Your task to perform on an android device: find snoozed emails in the gmail app Image 0: 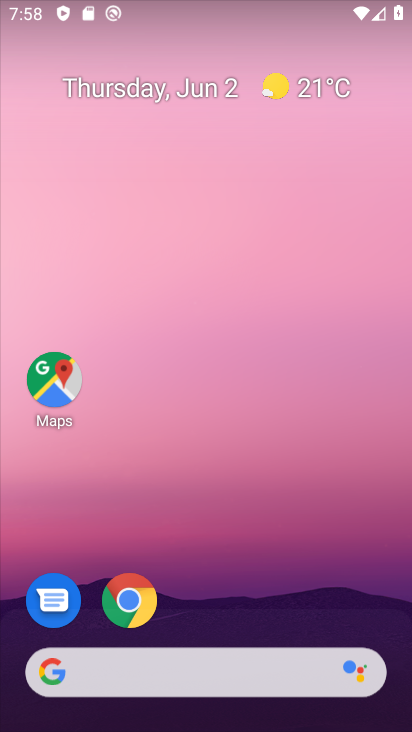
Step 0: drag from (198, 630) to (251, 97)
Your task to perform on an android device: find snoozed emails in the gmail app Image 1: 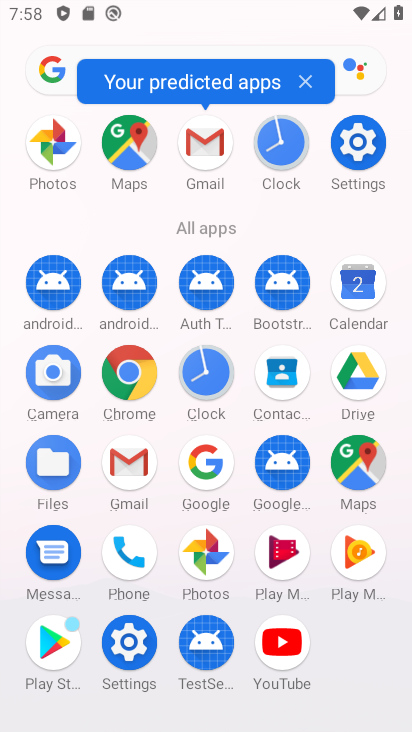
Step 1: click (212, 149)
Your task to perform on an android device: find snoozed emails in the gmail app Image 2: 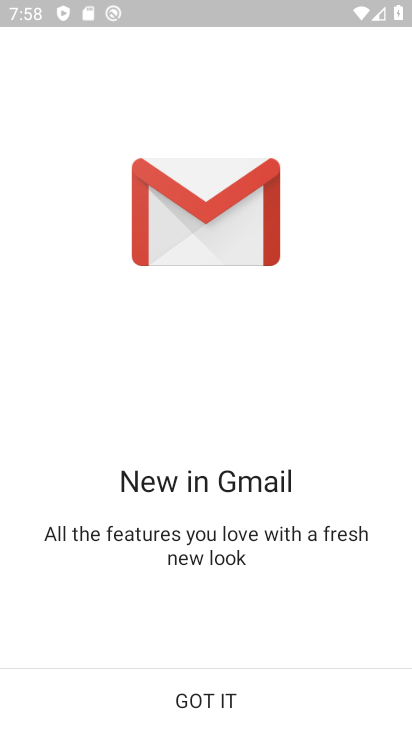
Step 2: click (193, 709)
Your task to perform on an android device: find snoozed emails in the gmail app Image 3: 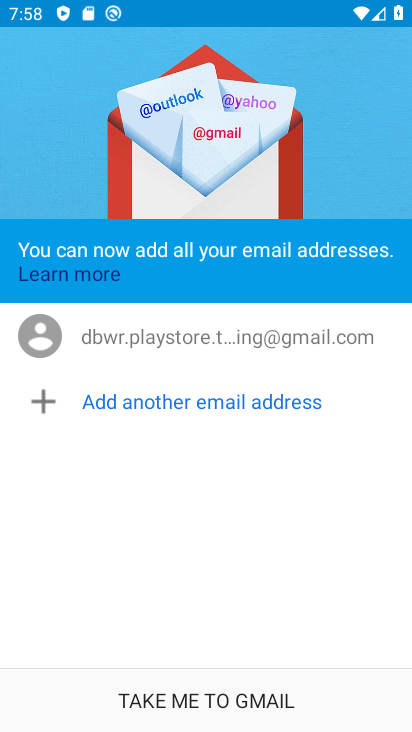
Step 3: click (193, 709)
Your task to perform on an android device: find snoozed emails in the gmail app Image 4: 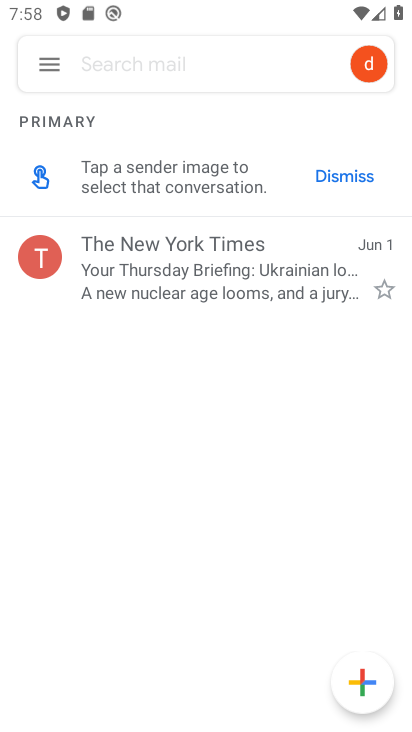
Step 4: click (49, 61)
Your task to perform on an android device: find snoozed emails in the gmail app Image 5: 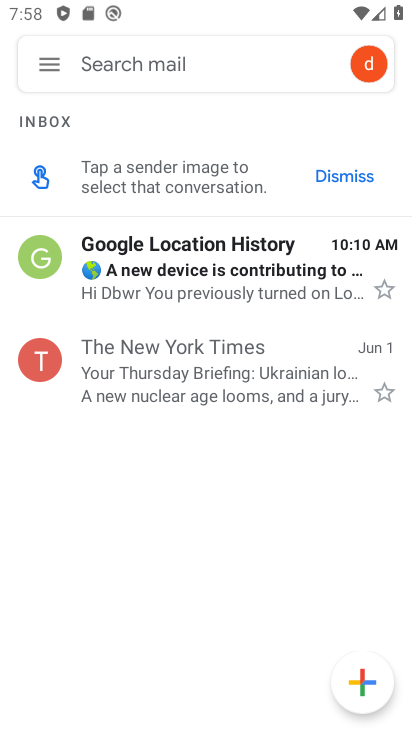
Step 5: click (52, 71)
Your task to perform on an android device: find snoozed emails in the gmail app Image 6: 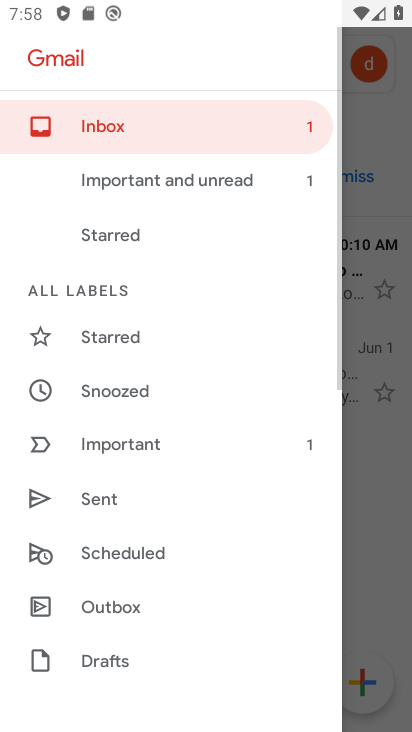
Step 6: click (160, 398)
Your task to perform on an android device: find snoozed emails in the gmail app Image 7: 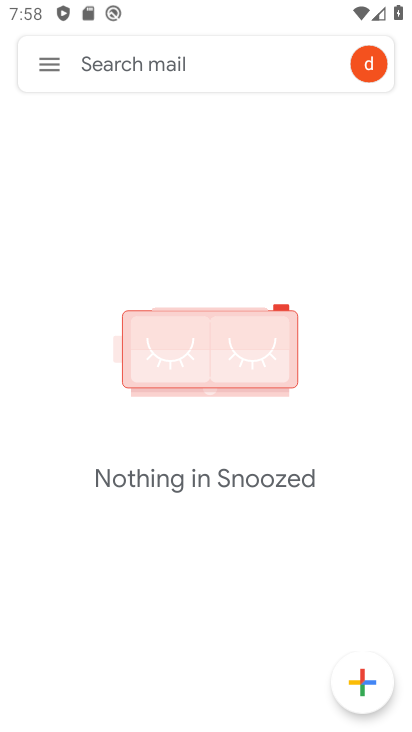
Step 7: task complete